Your task to perform on an android device: Go to accessibility settings Image 0: 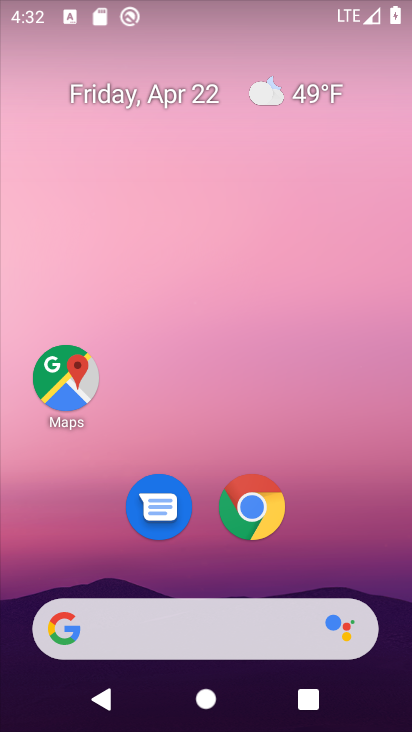
Step 0: drag from (374, 566) to (340, 98)
Your task to perform on an android device: Go to accessibility settings Image 1: 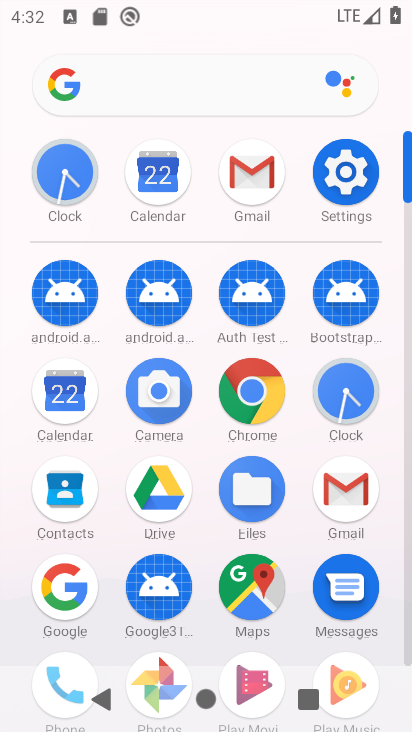
Step 1: click (406, 647)
Your task to perform on an android device: Go to accessibility settings Image 2: 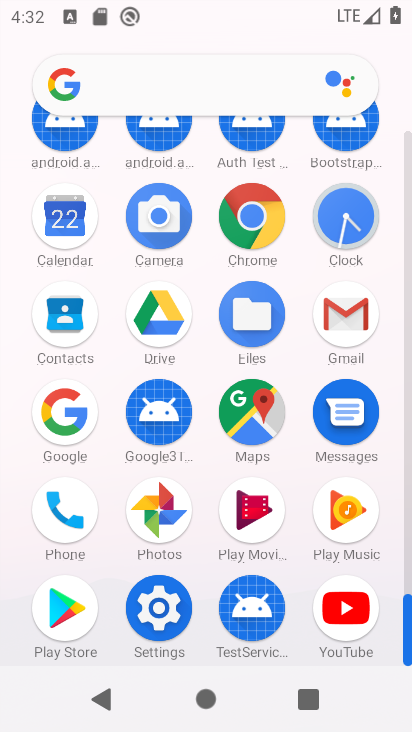
Step 2: click (157, 607)
Your task to perform on an android device: Go to accessibility settings Image 3: 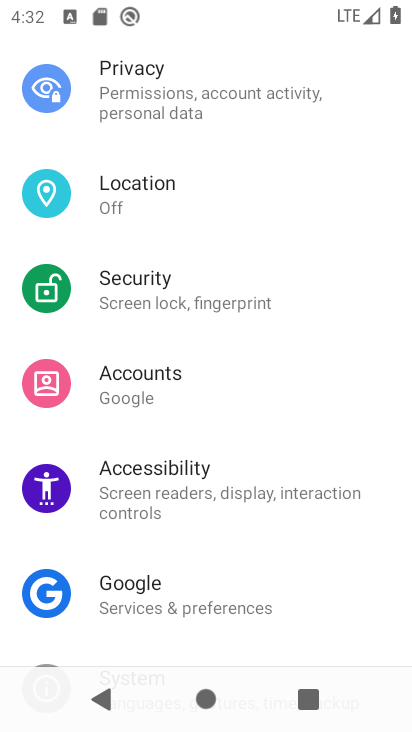
Step 3: drag from (364, 134) to (377, 98)
Your task to perform on an android device: Go to accessibility settings Image 4: 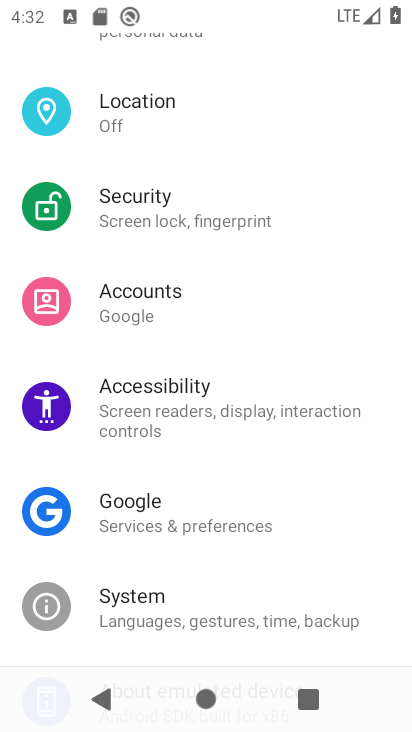
Step 4: click (157, 403)
Your task to perform on an android device: Go to accessibility settings Image 5: 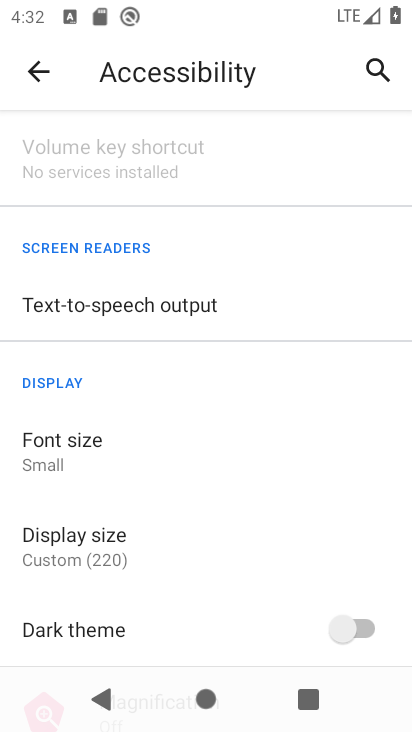
Step 5: task complete